Your task to perform on an android device: Go to Yahoo.com Image 0: 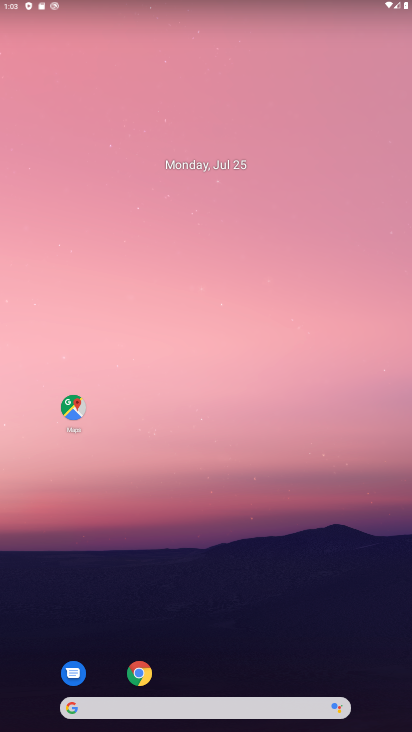
Step 0: click (141, 673)
Your task to perform on an android device: Go to Yahoo.com Image 1: 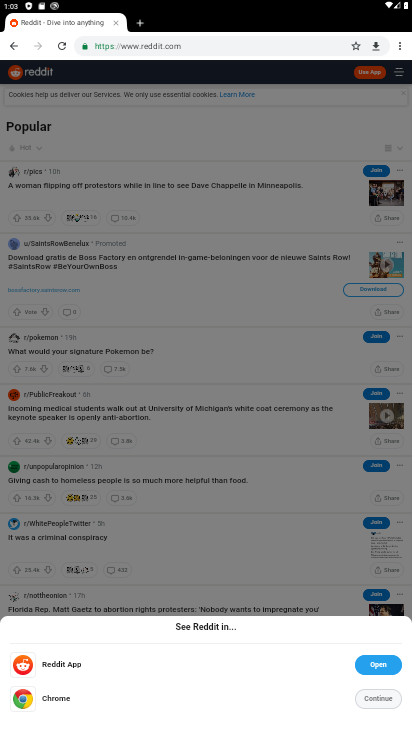
Step 1: click (198, 47)
Your task to perform on an android device: Go to Yahoo.com Image 2: 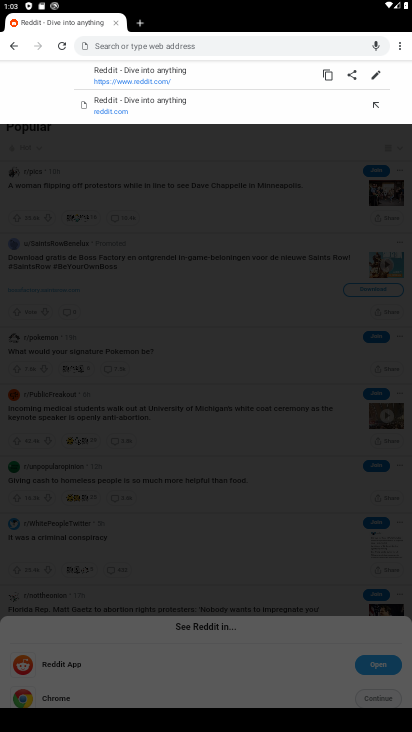
Step 2: type "yahoo.com"
Your task to perform on an android device: Go to Yahoo.com Image 3: 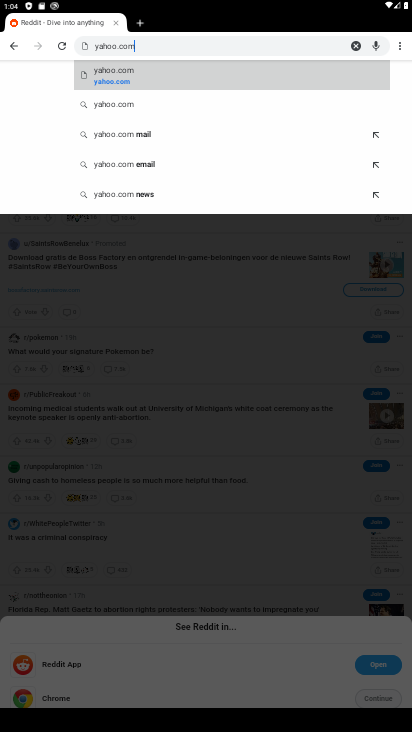
Step 3: click (119, 72)
Your task to perform on an android device: Go to Yahoo.com Image 4: 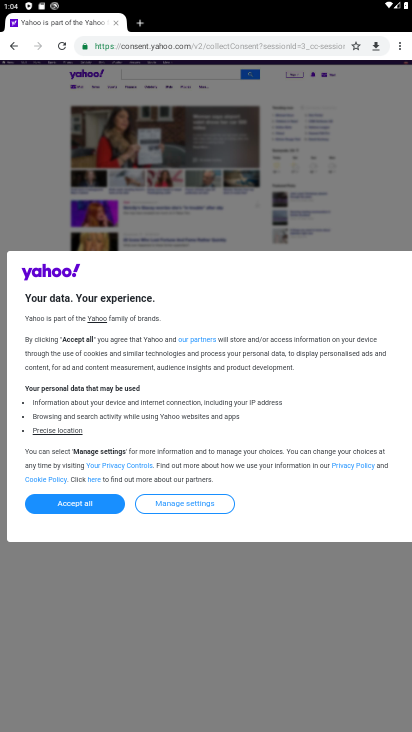
Step 4: click (76, 505)
Your task to perform on an android device: Go to Yahoo.com Image 5: 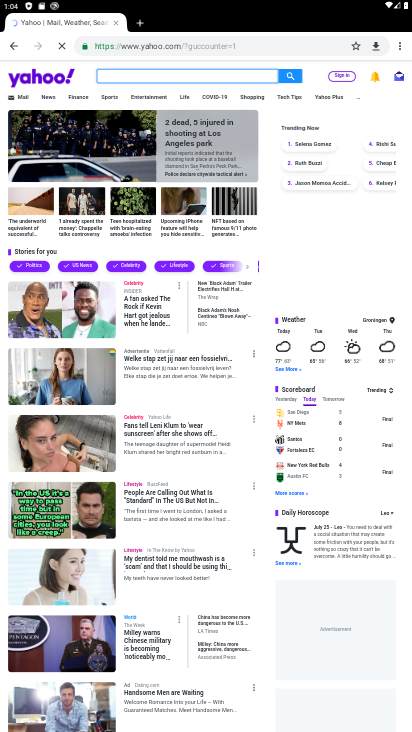
Step 5: task complete